Your task to perform on an android device: What is the recent news? Image 0: 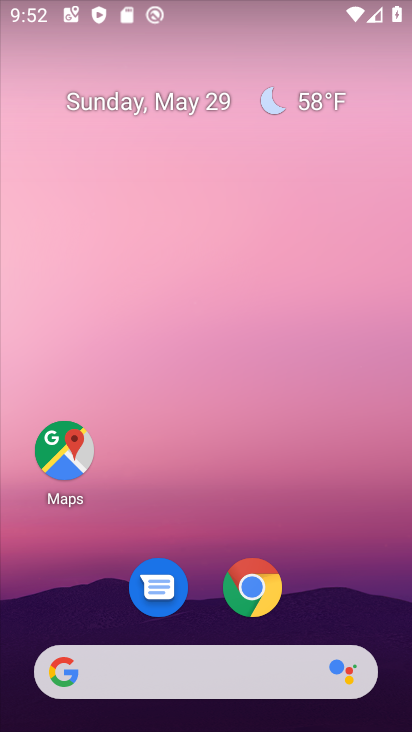
Step 0: click (254, 676)
Your task to perform on an android device: What is the recent news? Image 1: 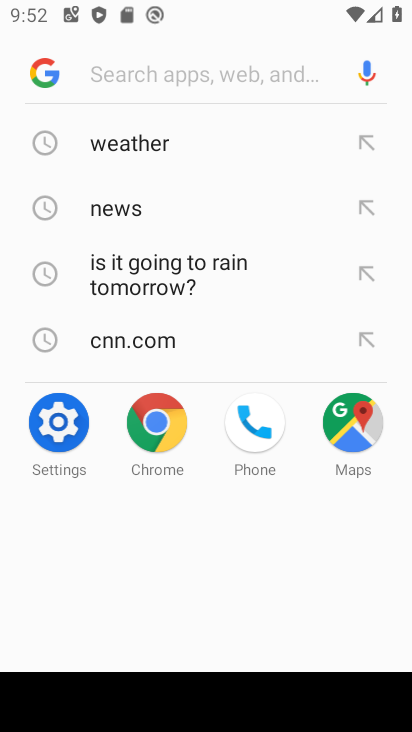
Step 1: type "What is the recent news?"
Your task to perform on an android device: What is the recent news? Image 2: 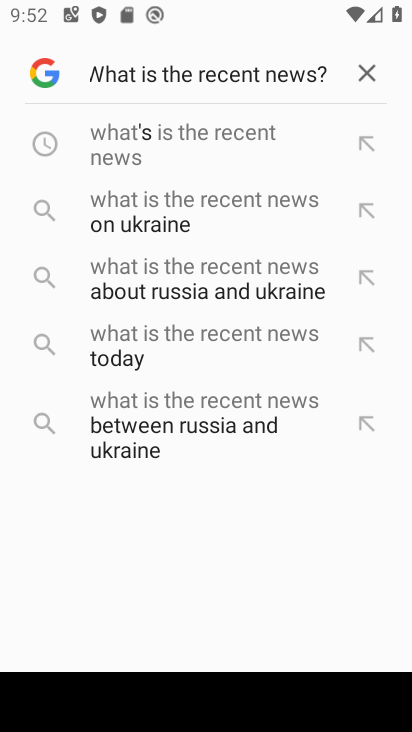
Step 2: click (157, 146)
Your task to perform on an android device: What is the recent news? Image 3: 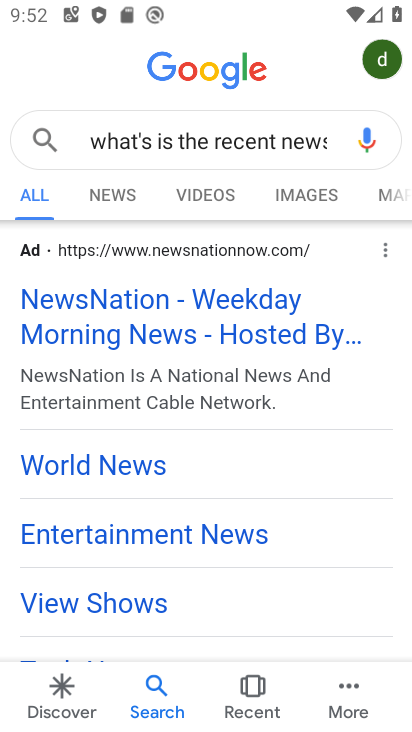
Step 3: task complete